Your task to perform on an android device: Open accessibility settings Image 0: 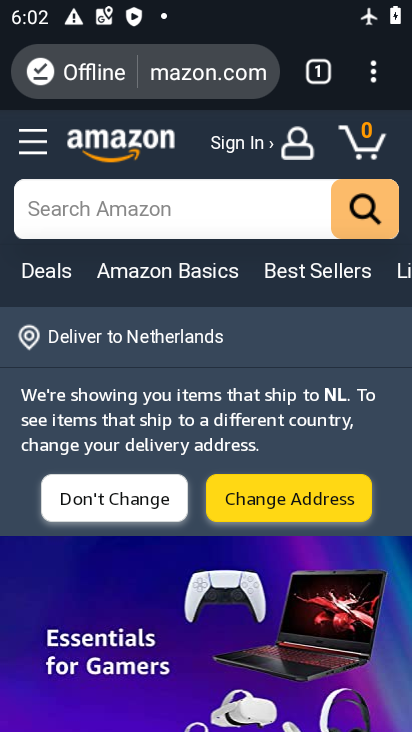
Step 0: press home button
Your task to perform on an android device: Open accessibility settings Image 1: 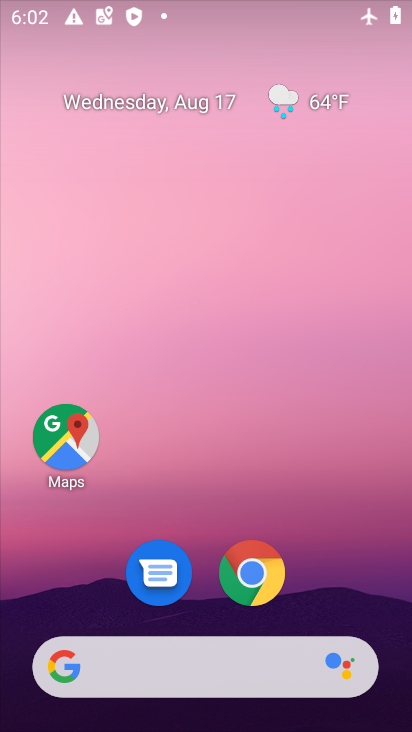
Step 1: drag from (352, 585) to (291, 122)
Your task to perform on an android device: Open accessibility settings Image 2: 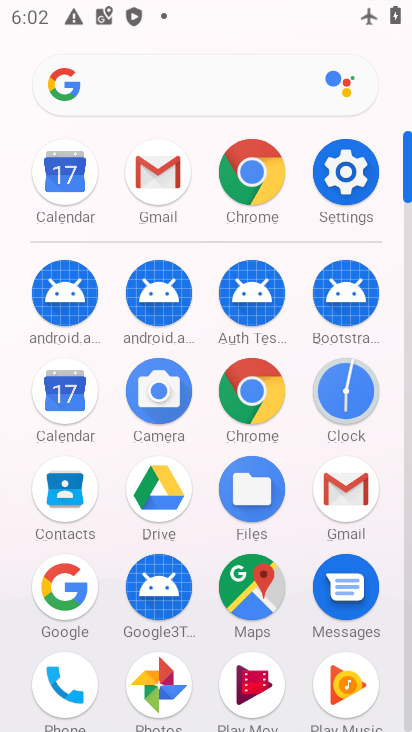
Step 2: click (349, 182)
Your task to perform on an android device: Open accessibility settings Image 3: 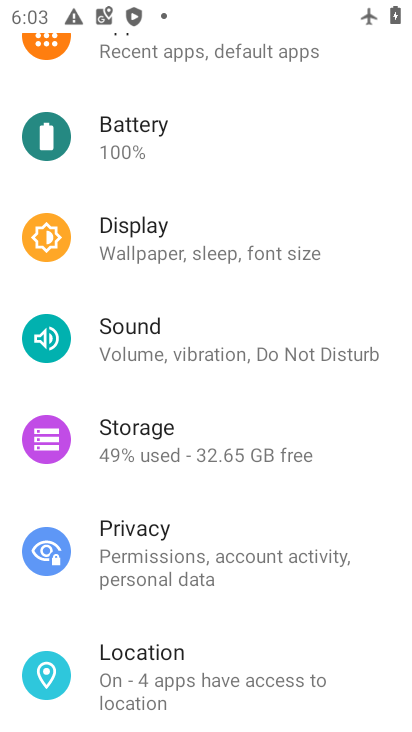
Step 3: drag from (256, 583) to (269, 216)
Your task to perform on an android device: Open accessibility settings Image 4: 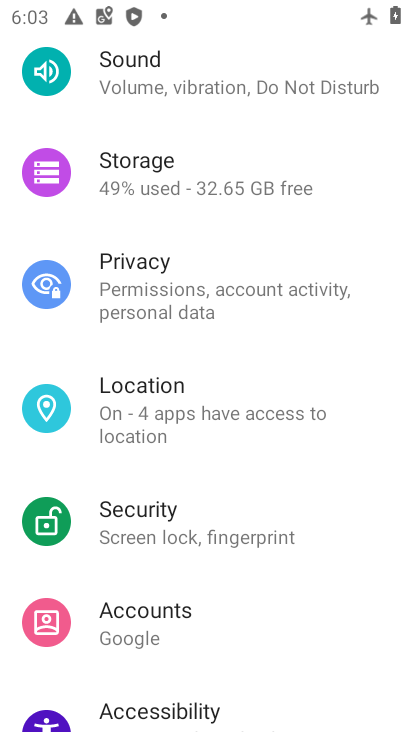
Step 4: drag from (214, 638) to (218, 266)
Your task to perform on an android device: Open accessibility settings Image 5: 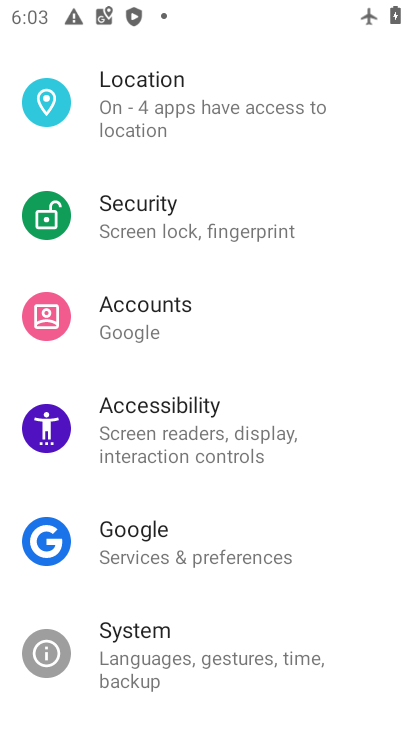
Step 5: click (195, 435)
Your task to perform on an android device: Open accessibility settings Image 6: 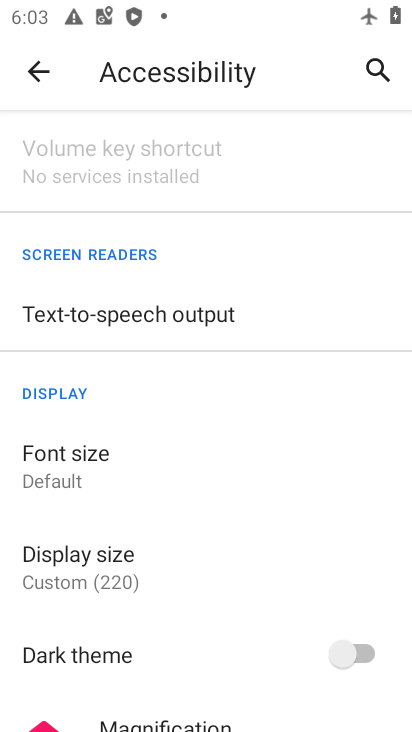
Step 6: task complete